Your task to perform on an android device: install app "Messenger Lite" Image 0: 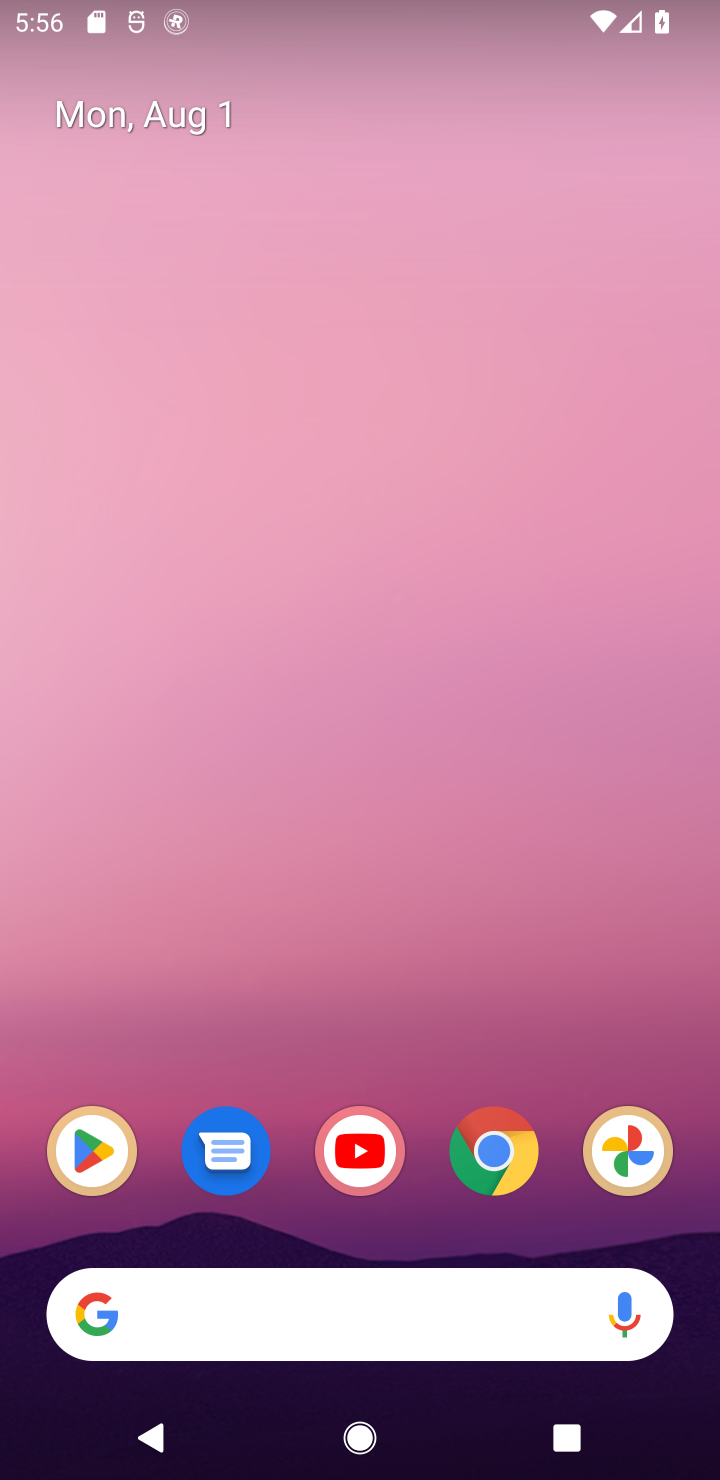
Step 0: click (90, 1147)
Your task to perform on an android device: install app "Messenger Lite" Image 1: 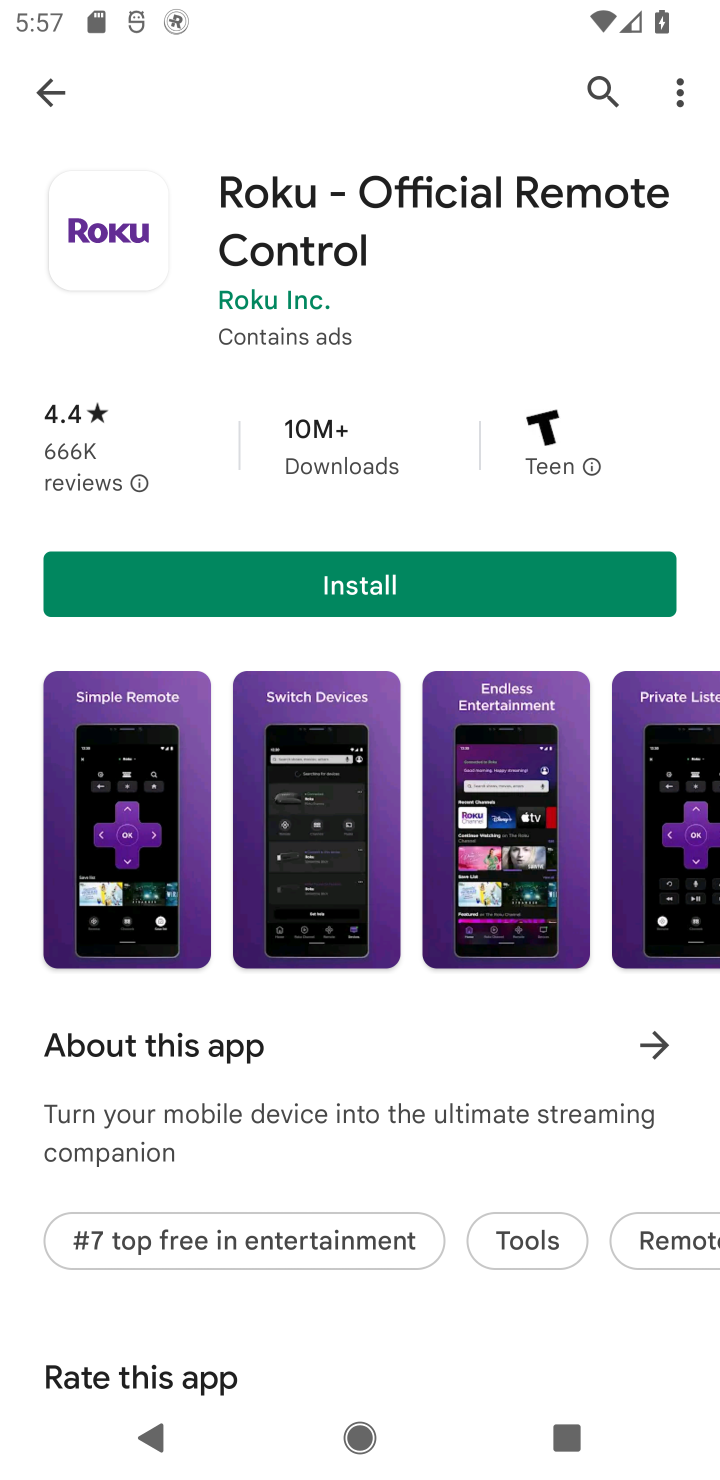
Step 1: click (587, 92)
Your task to perform on an android device: install app "Messenger Lite" Image 2: 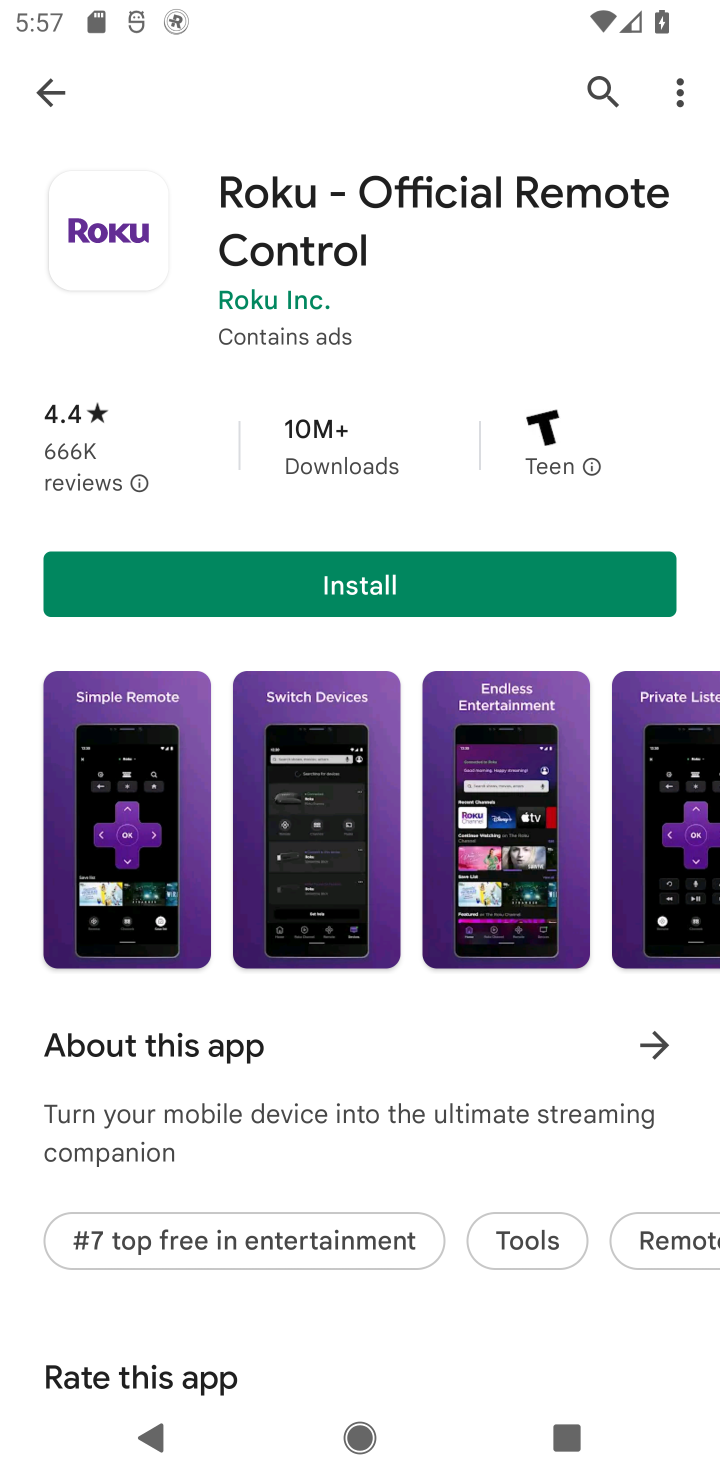
Step 2: click (619, 108)
Your task to perform on an android device: install app "Messenger Lite" Image 3: 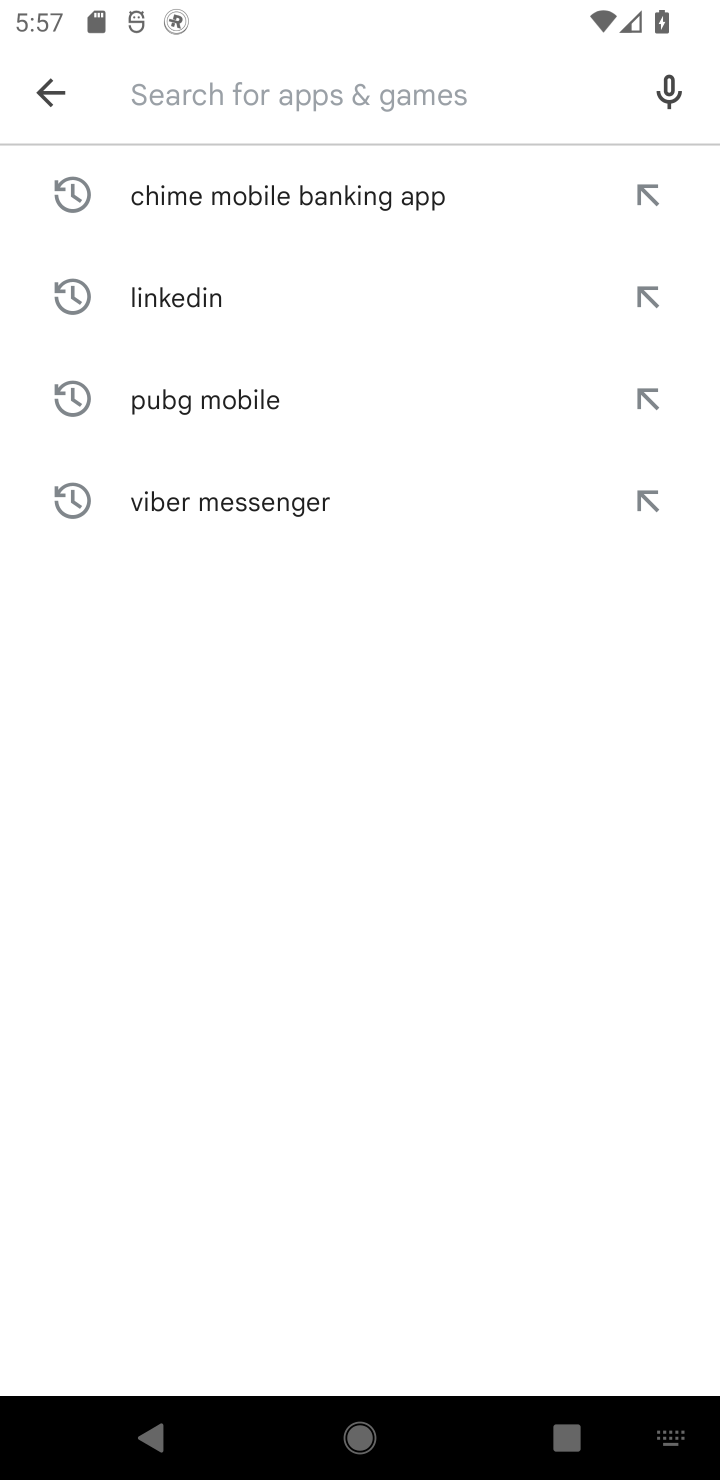
Step 3: type "Messenger Lite"
Your task to perform on an android device: install app "Messenger Lite" Image 4: 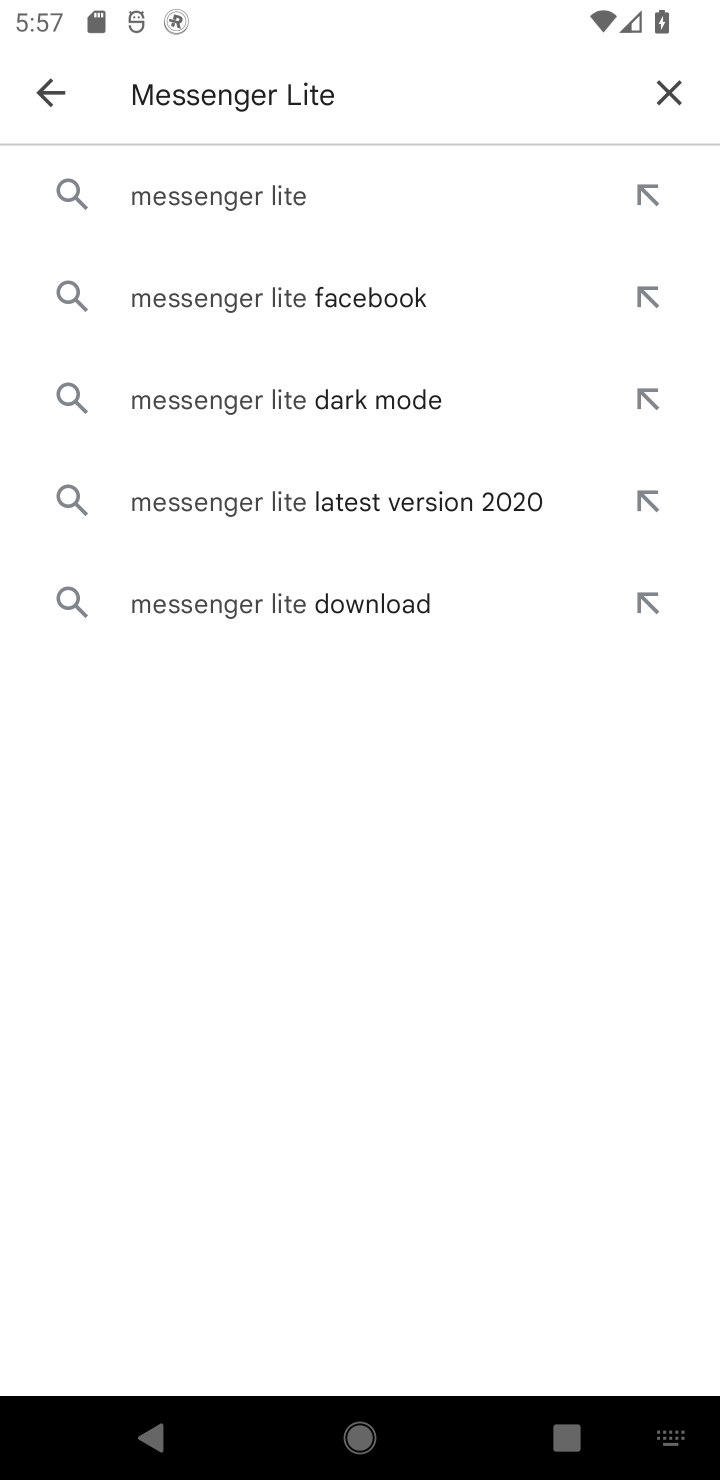
Step 4: click (243, 192)
Your task to perform on an android device: install app "Messenger Lite" Image 5: 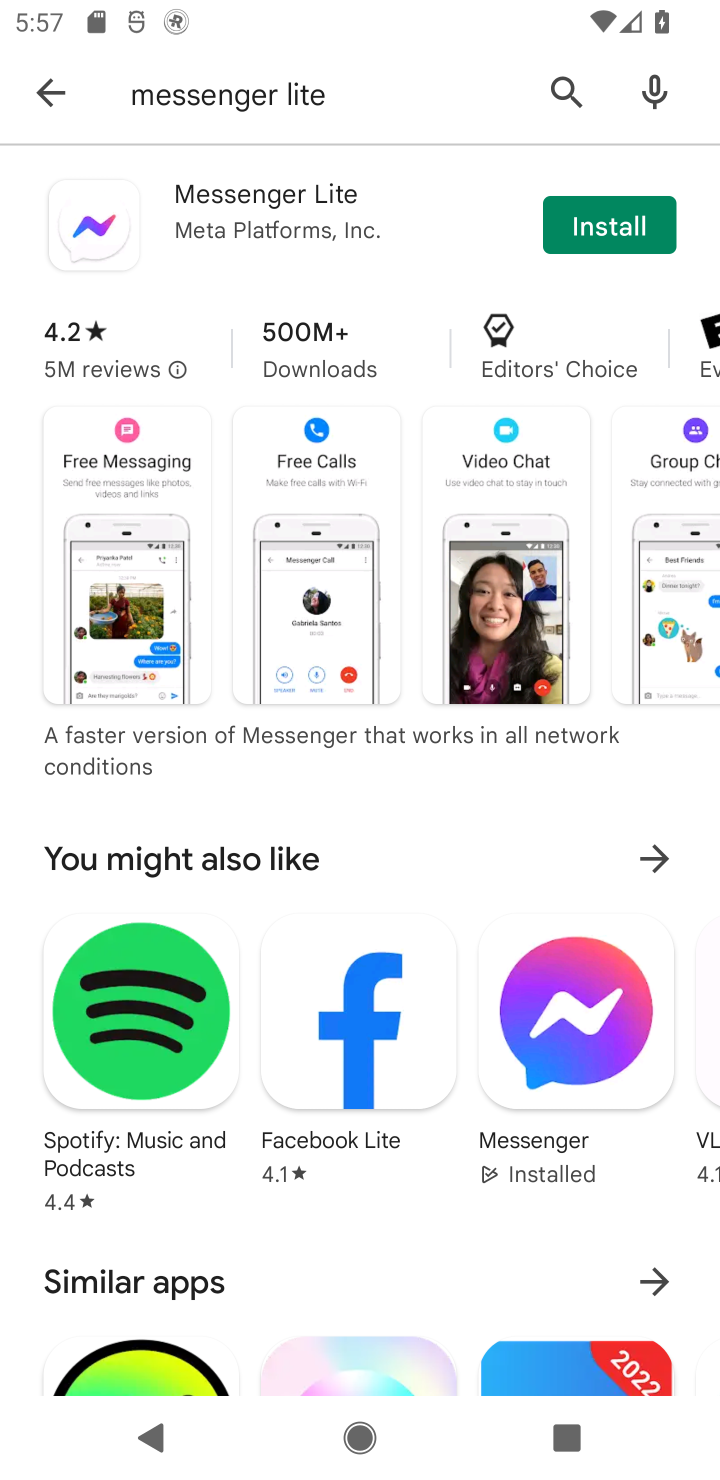
Step 5: click (576, 221)
Your task to perform on an android device: install app "Messenger Lite" Image 6: 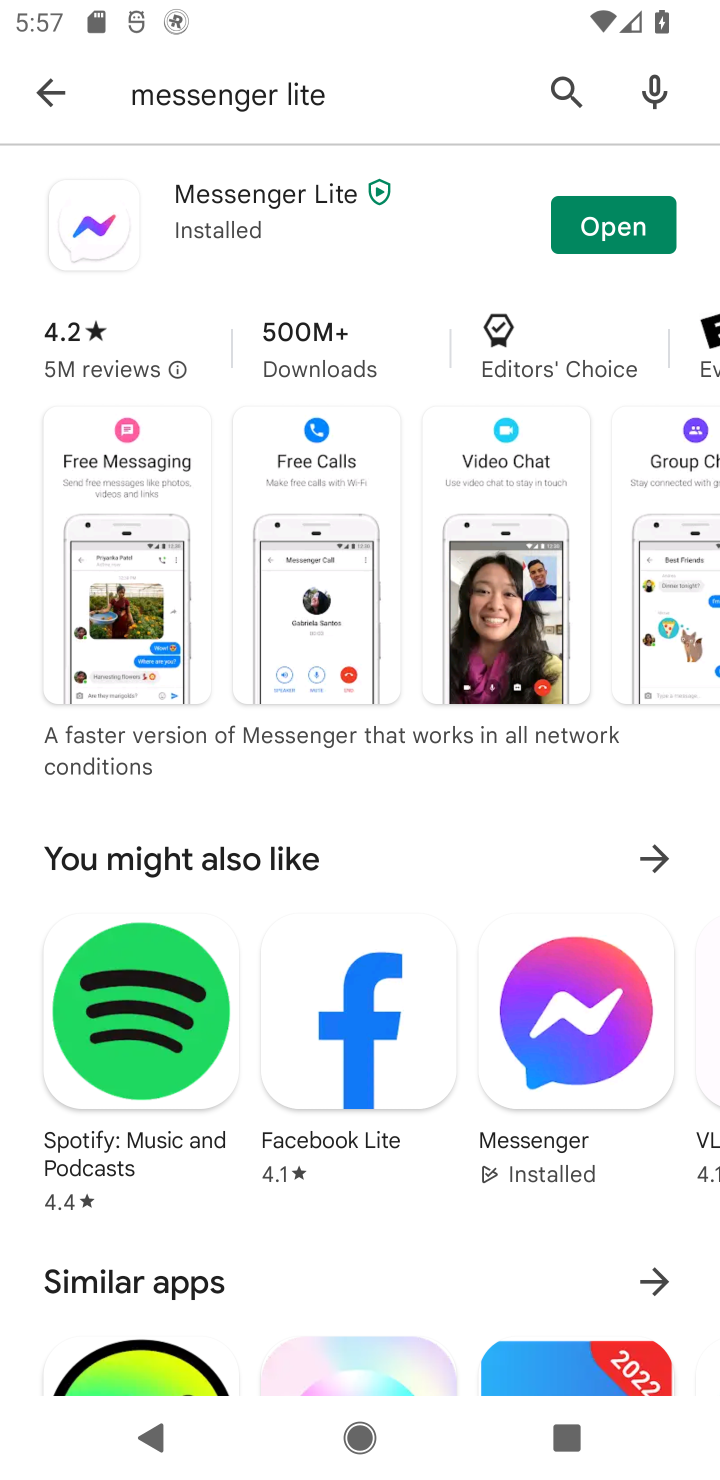
Step 6: task complete